Your task to perform on an android device: add a contact in the contacts app Image 0: 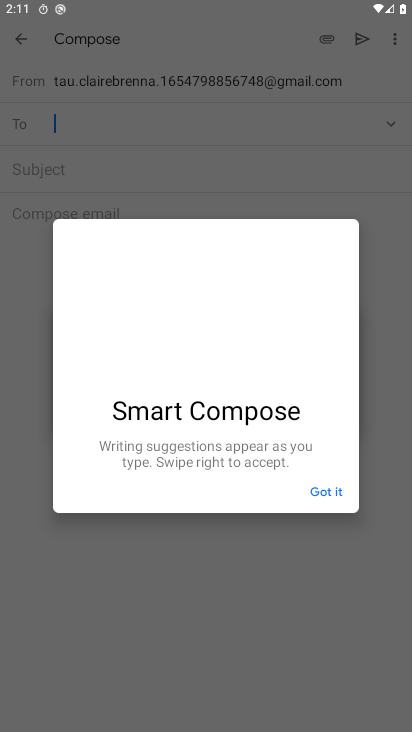
Step 0: press home button
Your task to perform on an android device: add a contact in the contacts app Image 1: 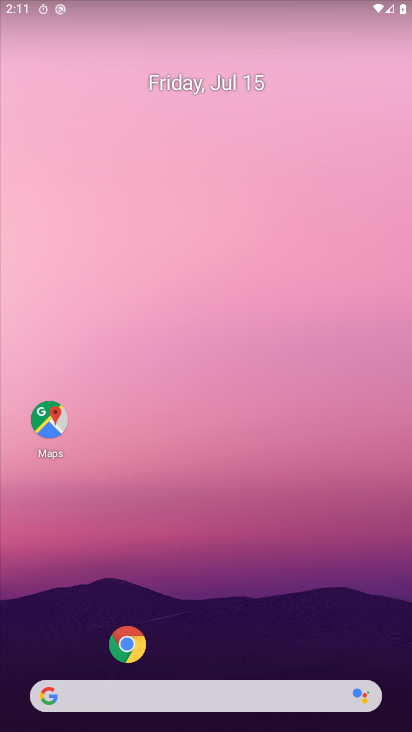
Step 1: drag from (41, 597) to (355, 70)
Your task to perform on an android device: add a contact in the contacts app Image 2: 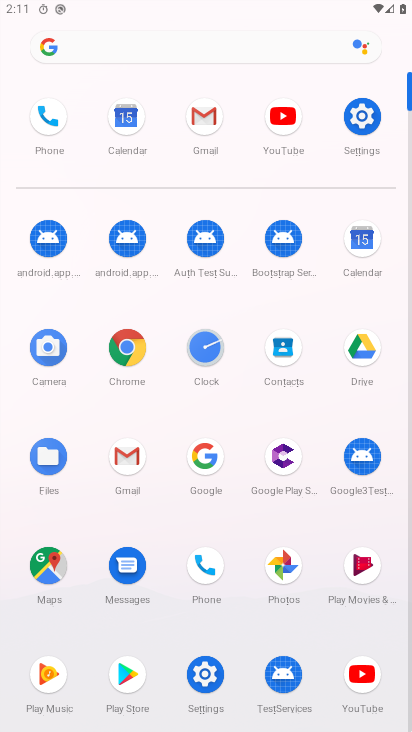
Step 2: click (295, 355)
Your task to perform on an android device: add a contact in the contacts app Image 3: 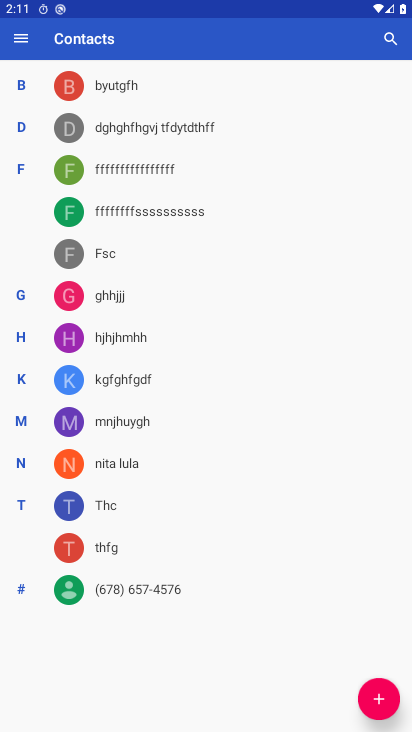
Step 3: click (387, 702)
Your task to perform on an android device: add a contact in the contacts app Image 4: 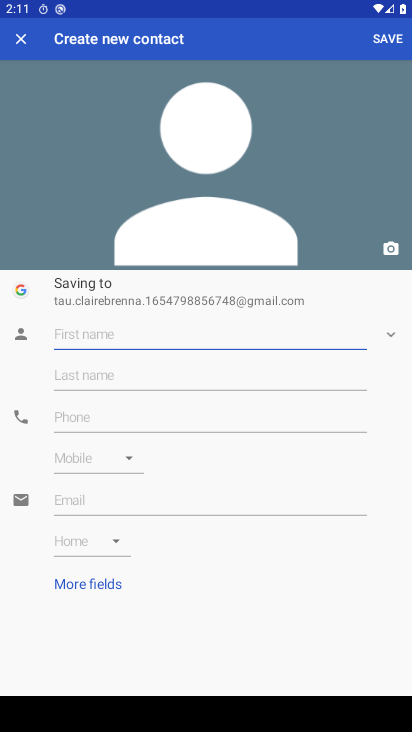
Step 4: type "qqssdxd"
Your task to perform on an android device: add a contact in the contacts app Image 5: 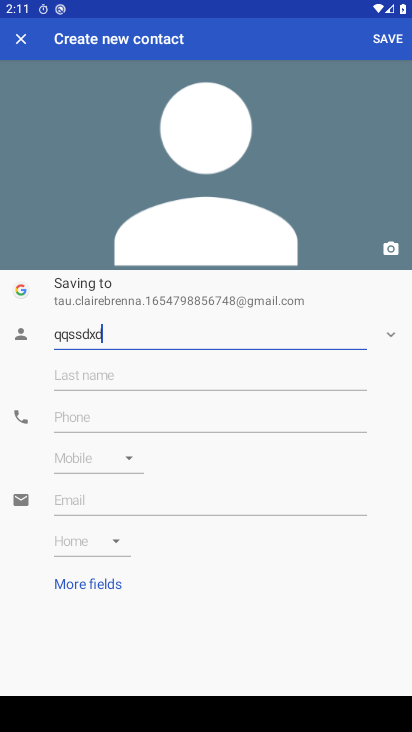
Step 5: type ""
Your task to perform on an android device: add a contact in the contacts app Image 6: 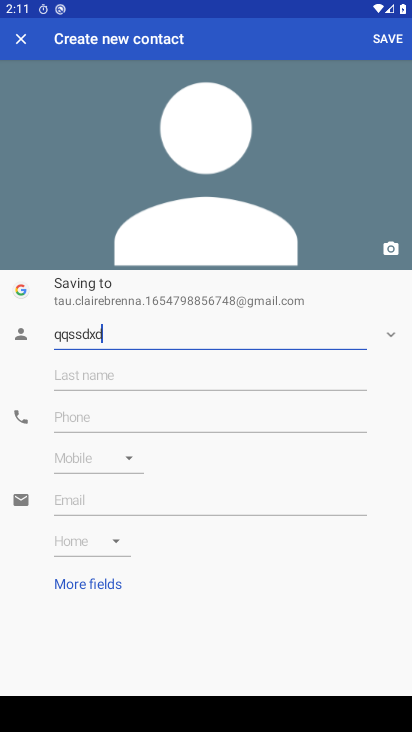
Step 6: click (385, 39)
Your task to perform on an android device: add a contact in the contacts app Image 7: 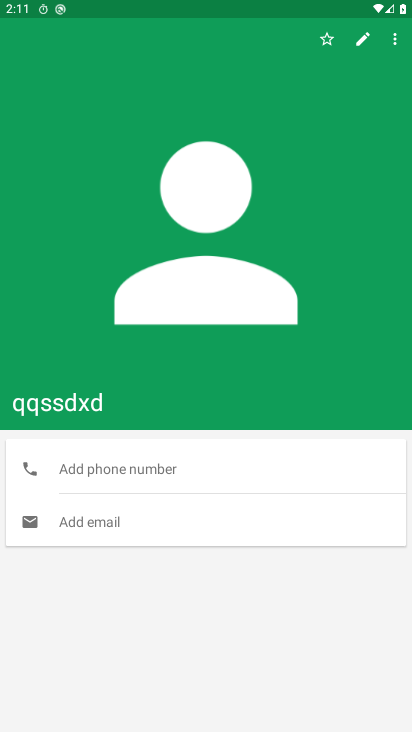
Step 7: task complete